Your task to perform on an android device: change the upload size in google photos Image 0: 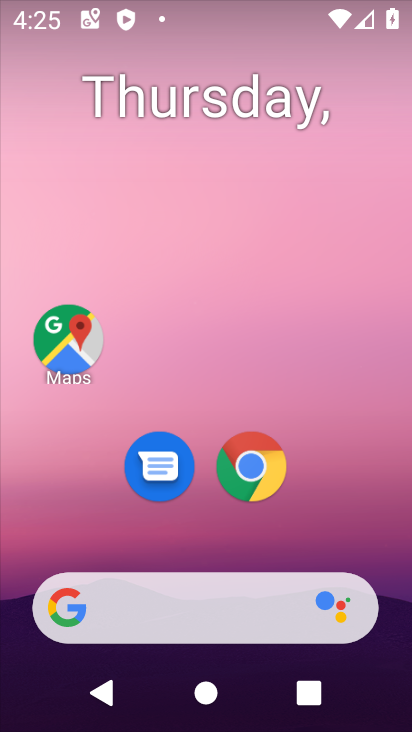
Step 0: drag from (365, 471) to (394, 1)
Your task to perform on an android device: change the upload size in google photos Image 1: 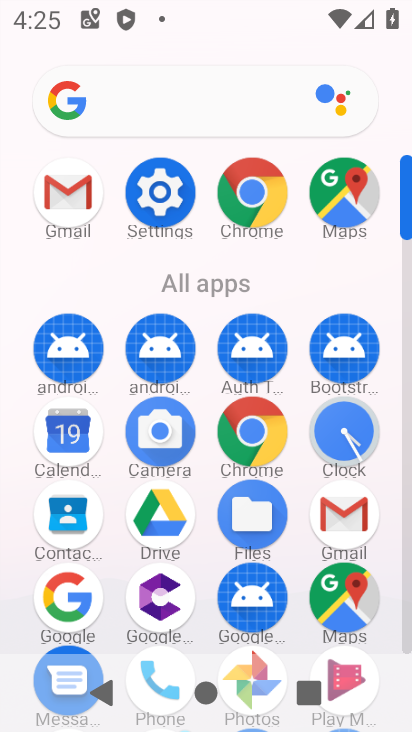
Step 1: drag from (410, 566) to (397, 274)
Your task to perform on an android device: change the upload size in google photos Image 2: 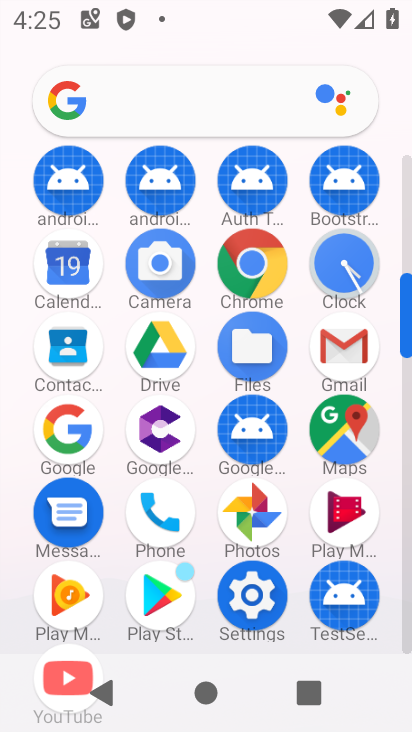
Step 2: click (256, 514)
Your task to perform on an android device: change the upload size in google photos Image 3: 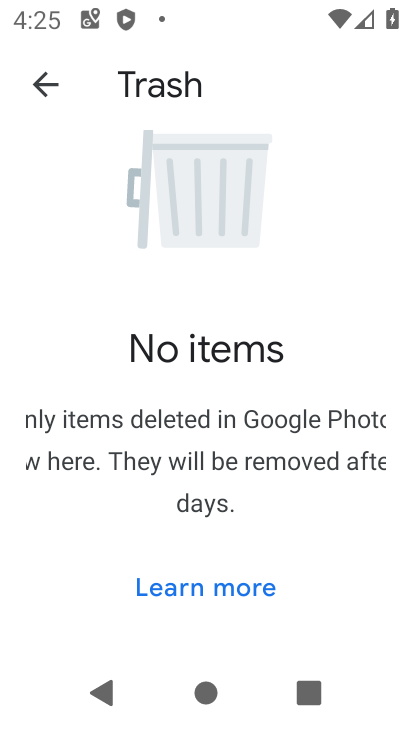
Step 3: click (48, 72)
Your task to perform on an android device: change the upload size in google photos Image 4: 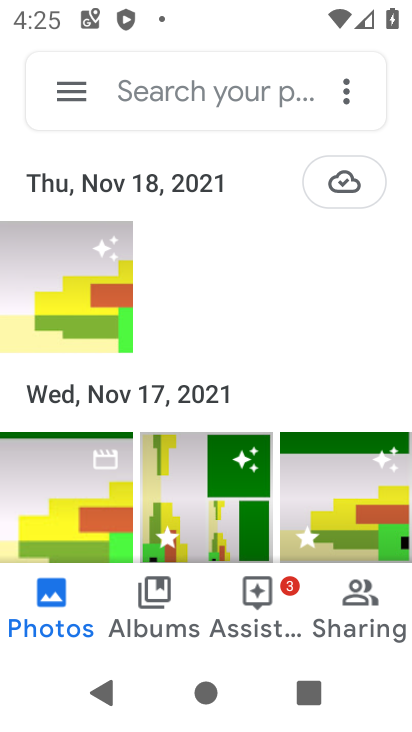
Step 4: click (48, 70)
Your task to perform on an android device: change the upload size in google photos Image 5: 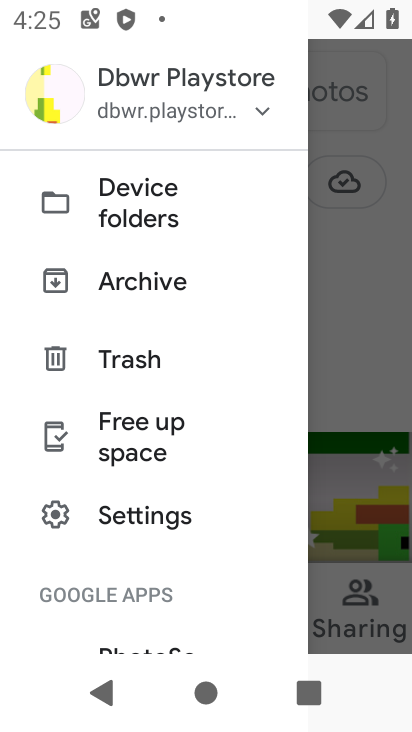
Step 5: click (163, 501)
Your task to perform on an android device: change the upload size in google photos Image 6: 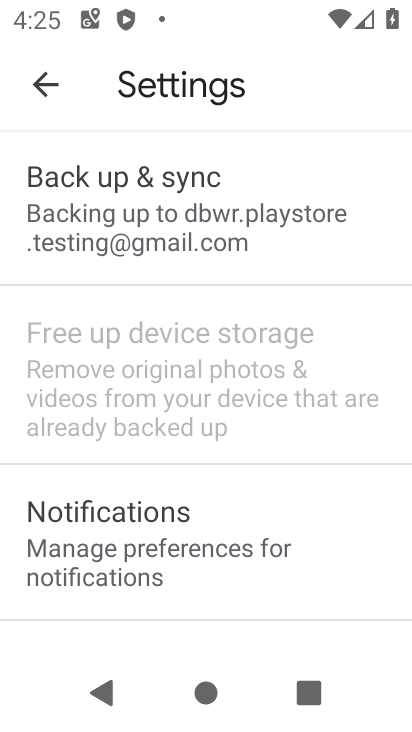
Step 6: click (159, 216)
Your task to perform on an android device: change the upload size in google photos Image 7: 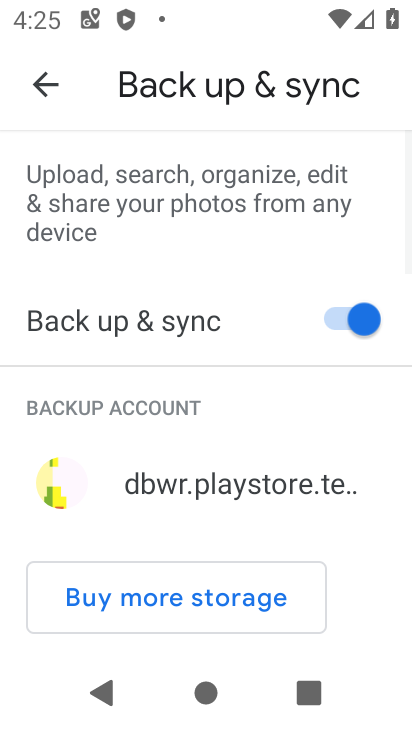
Step 7: drag from (346, 611) to (288, 214)
Your task to perform on an android device: change the upload size in google photos Image 8: 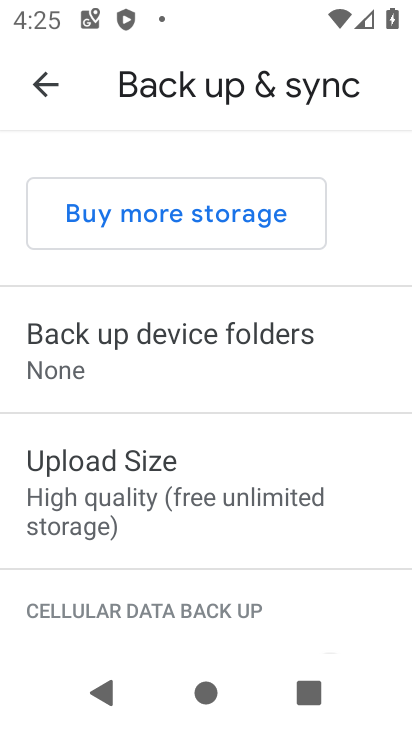
Step 8: click (207, 449)
Your task to perform on an android device: change the upload size in google photos Image 9: 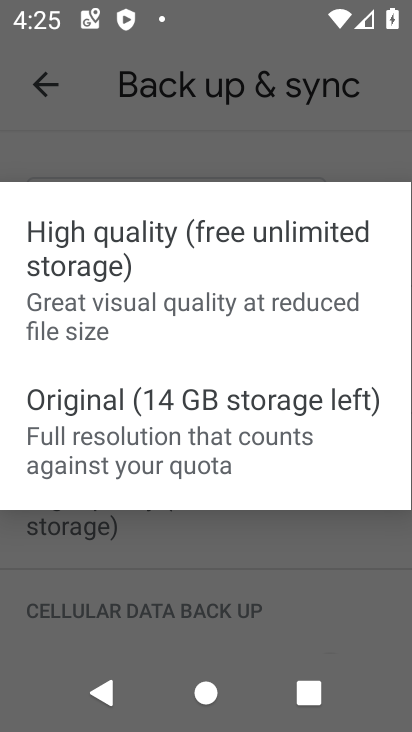
Step 9: click (263, 452)
Your task to perform on an android device: change the upload size in google photos Image 10: 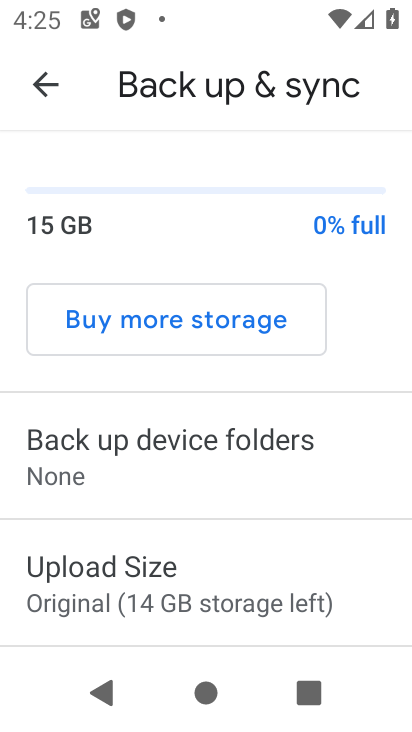
Step 10: task complete